Your task to perform on an android device: Open Youtube and go to "Your channel" Image 0: 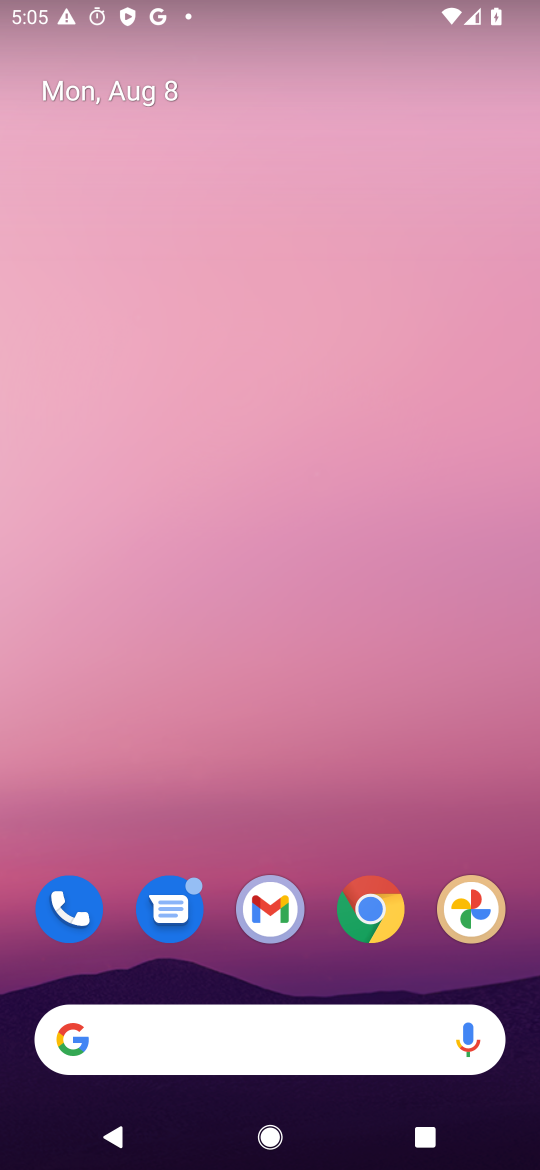
Step 0: drag from (234, 1047) to (443, 137)
Your task to perform on an android device: Open Youtube and go to "Your channel" Image 1: 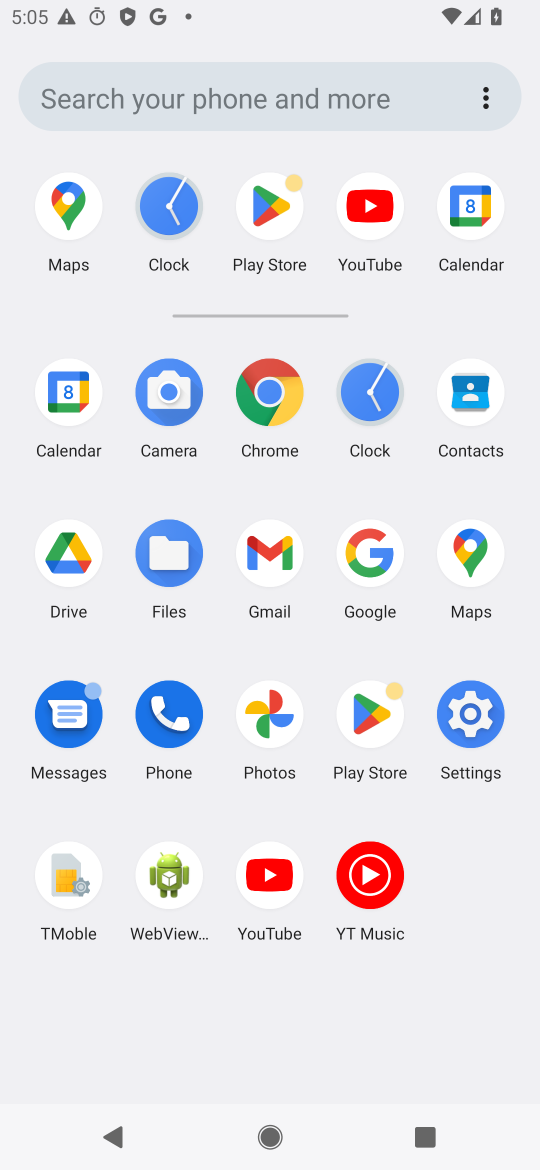
Step 1: click (266, 882)
Your task to perform on an android device: Open Youtube and go to "Your channel" Image 2: 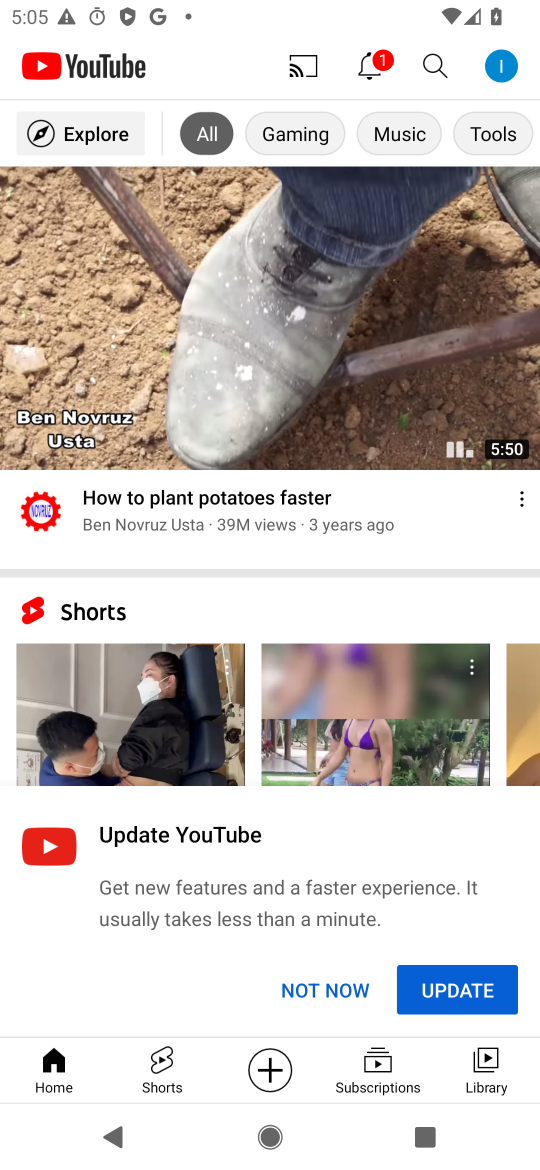
Step 2: click (493, 62)
Your task to perform on an android device: Open Youtube and go to "Your channel" Image 3: 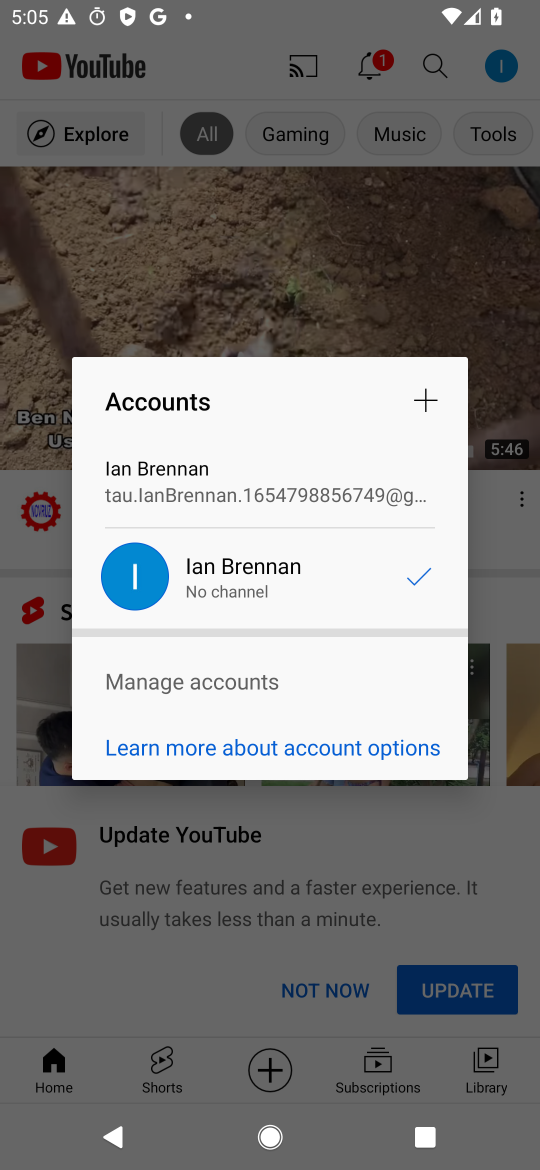
Step 3: click (505, 63)
Your task to perform on an android device: Open Youtube and go to "Your channel" Image 4: 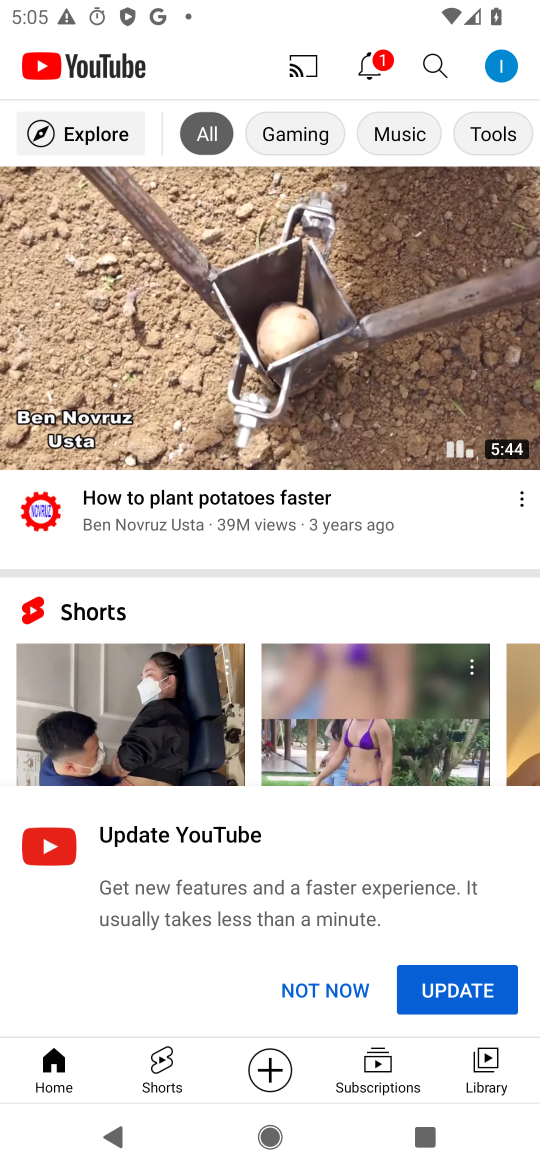
Step 4: click (509, 73)
Your task to perform on an android device: Open Youtube and go to "Your channel" Image 5: 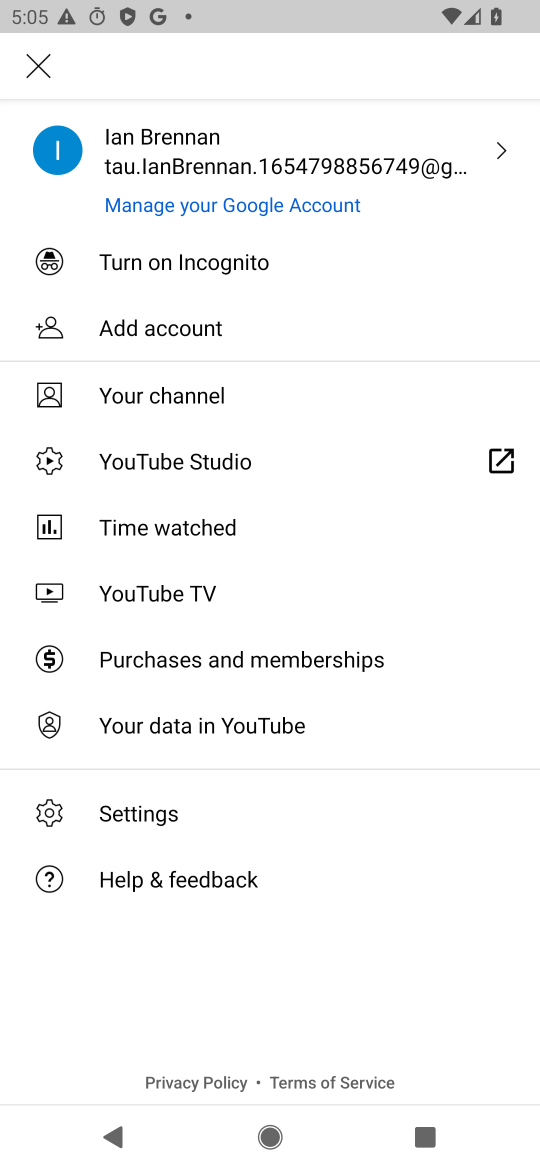
Step 5: click (172, 391)
Your task to perform on an android device: Open Youtube and go to "Your channel" Image 6: 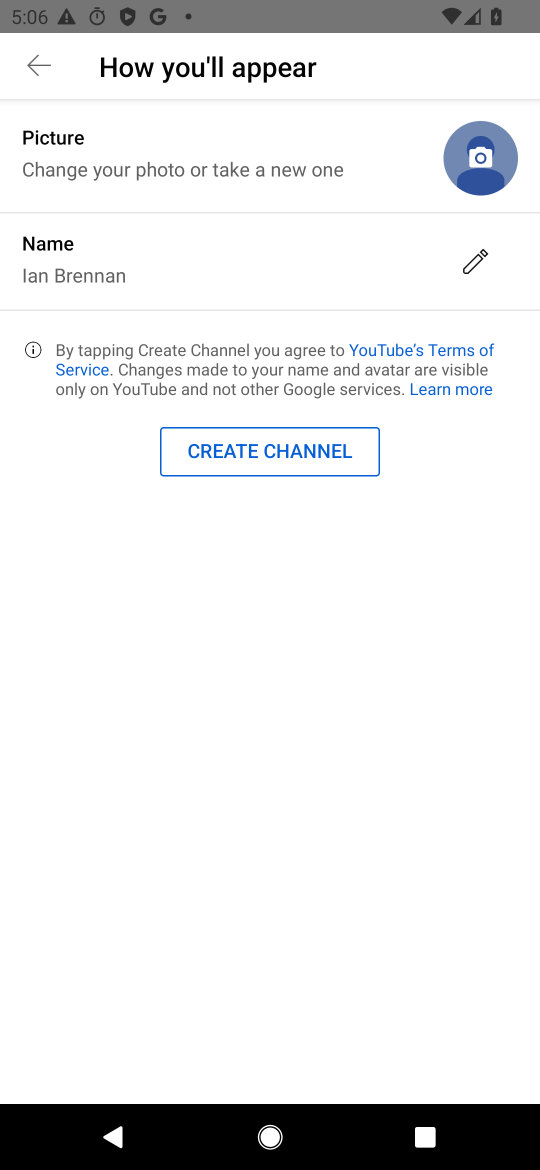
Step 6: task complete